Your task to perform on an android device: turn off airplane mode Image 0: 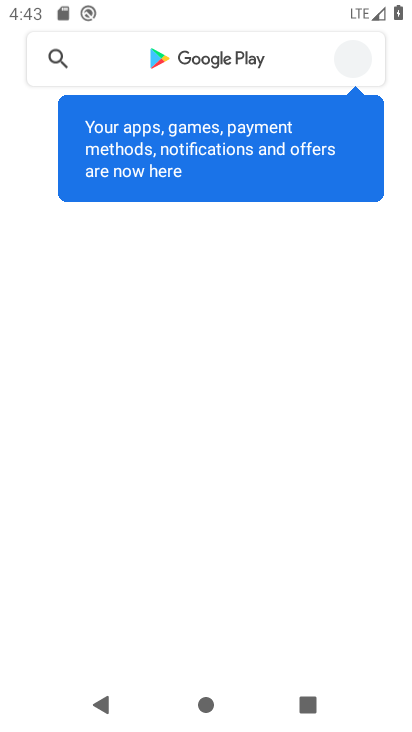
Step 0: press home button
Your task to perform on an android device: turn off airplane mode Image 1: 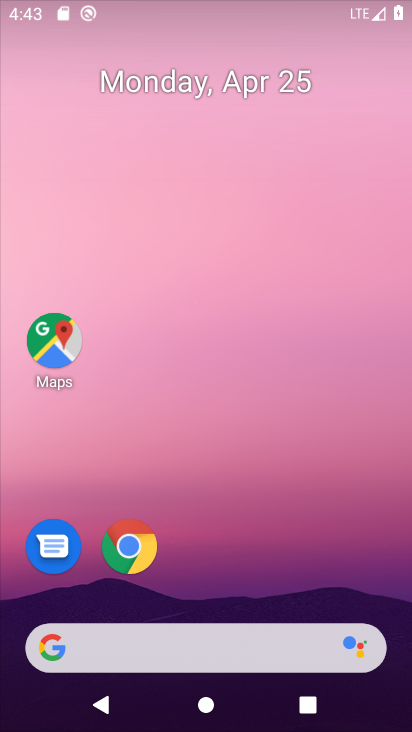
Step 1: drag from (222, 548) to (236, 0)
Your task to perform on an android device: turn off airplane mode Image 2: 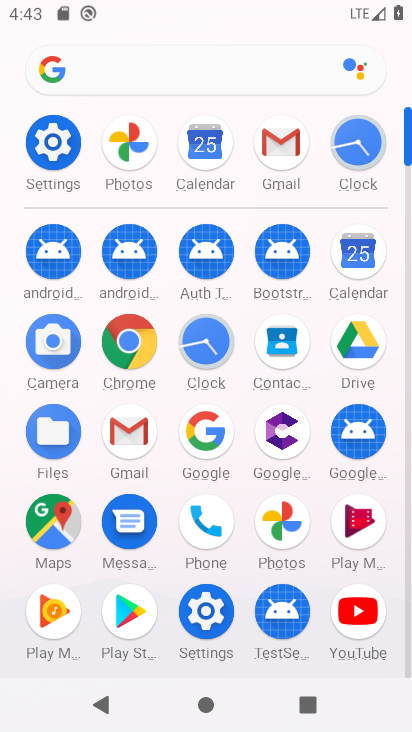
Step 2: click (44, 141)
Your task to perform on an android device: turn off airplane mode Image 3: 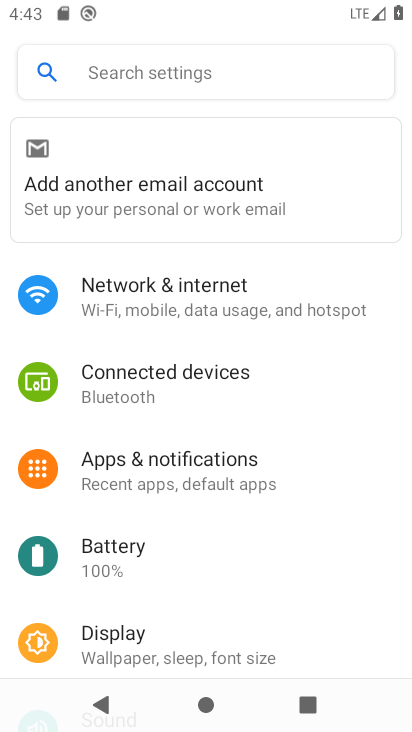
Step 3: click (157, 291)
Your task to perform on an android device: turn off airplane mode Image 4: 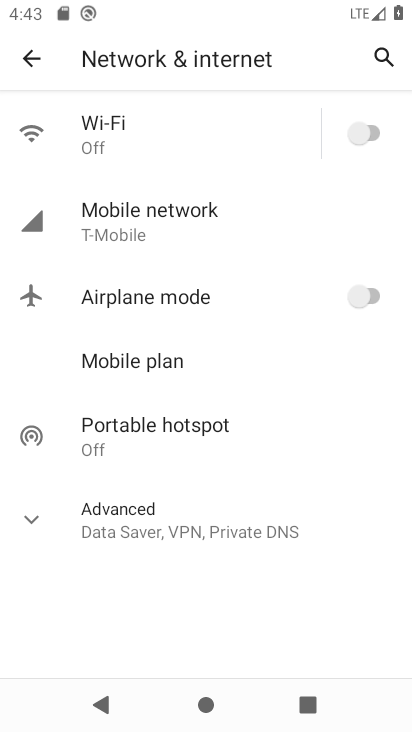
Step 4: task complete